Your task to perform on an android device: uninstall "Move to iOS" Image 0: 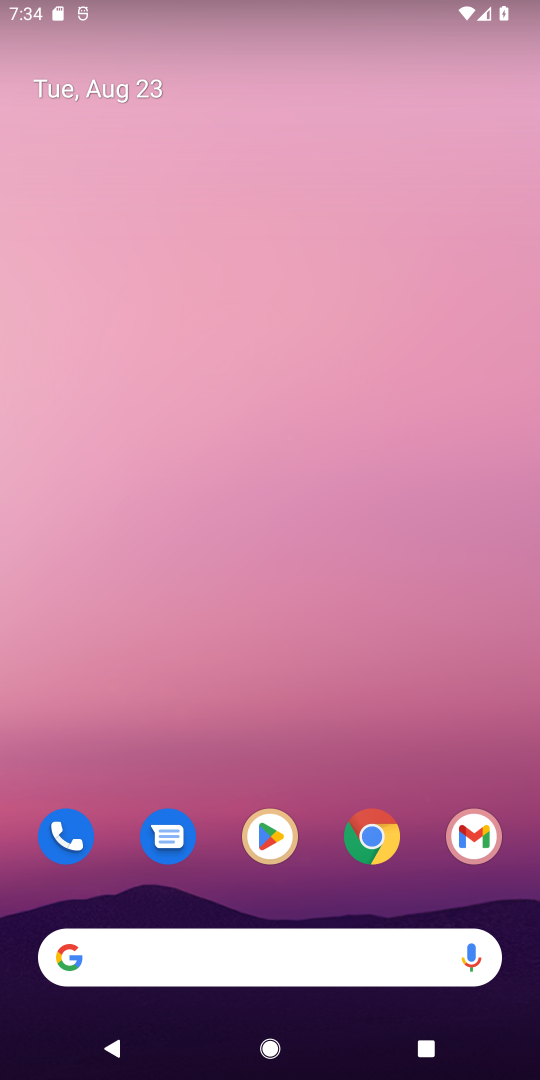
Step 0: click (284, 834)
Your task to perform on an android device: uninstall "Move to iOS" Image 1: 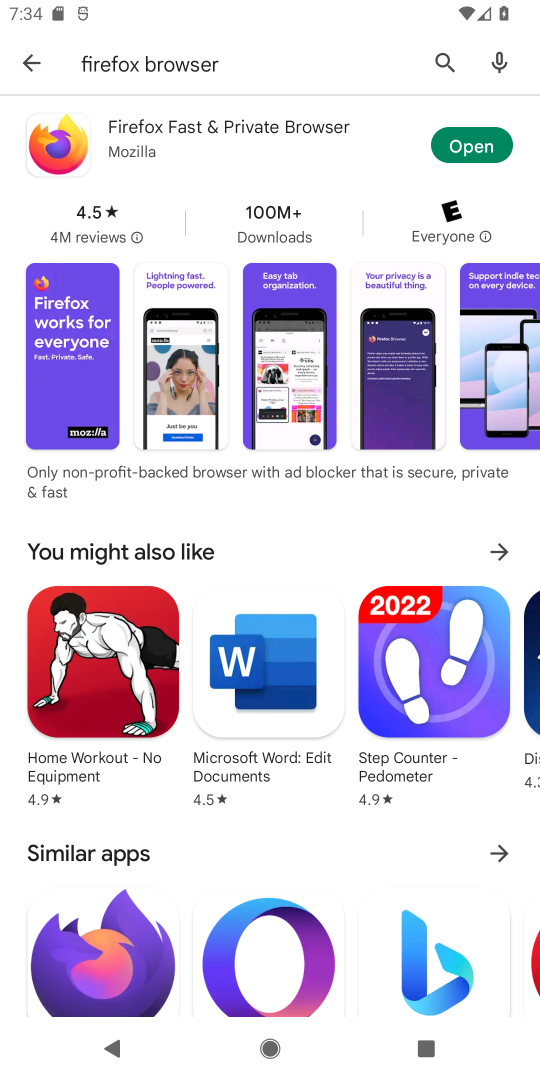
Step 1: click (442, 63)
Your task to perform on an android device: uninstall "Move to iOS" Image 2: 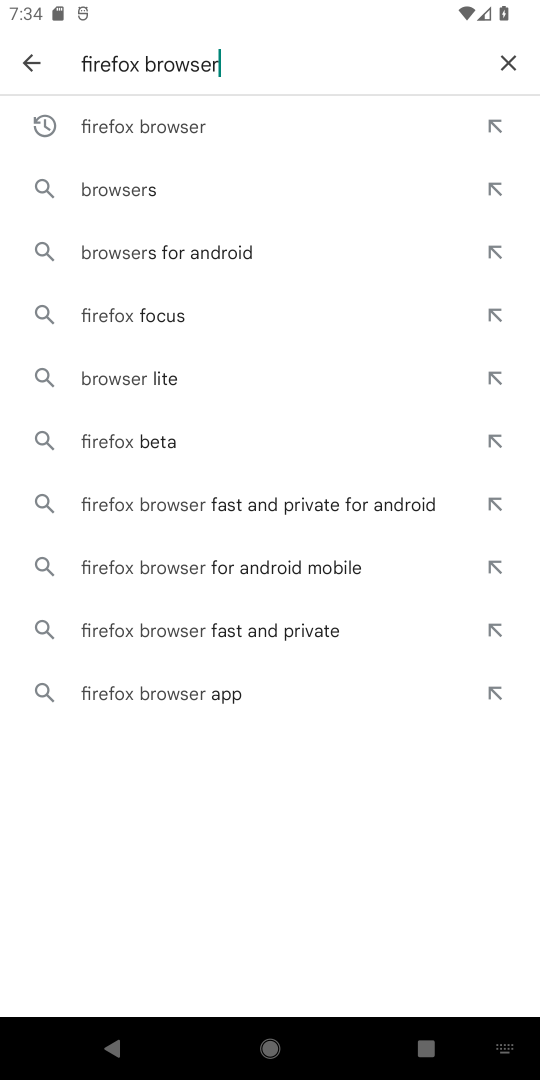
Step 2: click (505, 48)
Your task to perform on an android device: uninstall "Move to iOS" Image 3: 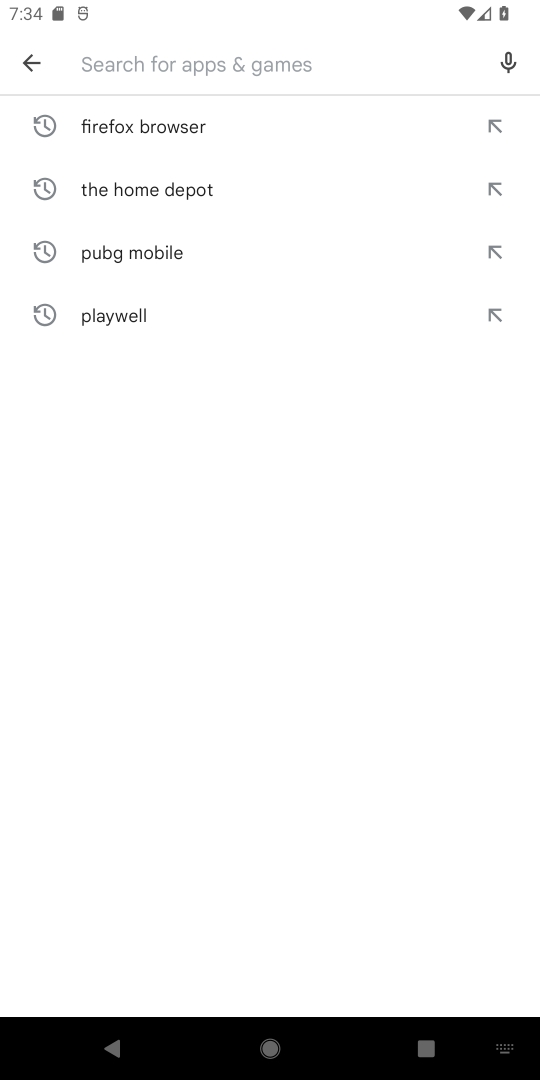
Step 3: type "Move to iOS"
Your task to perform on an android device: uninstall "Move to iOS" Image 4: 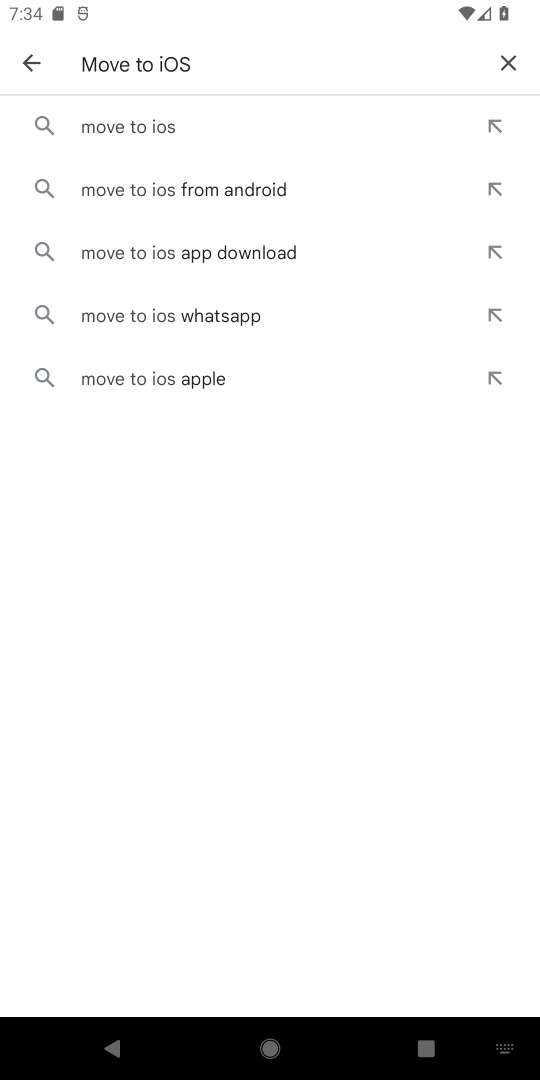
Step 4: click (173, 124)
Your task to perform on an android device: uninstall "Move to iOS" Image 5: 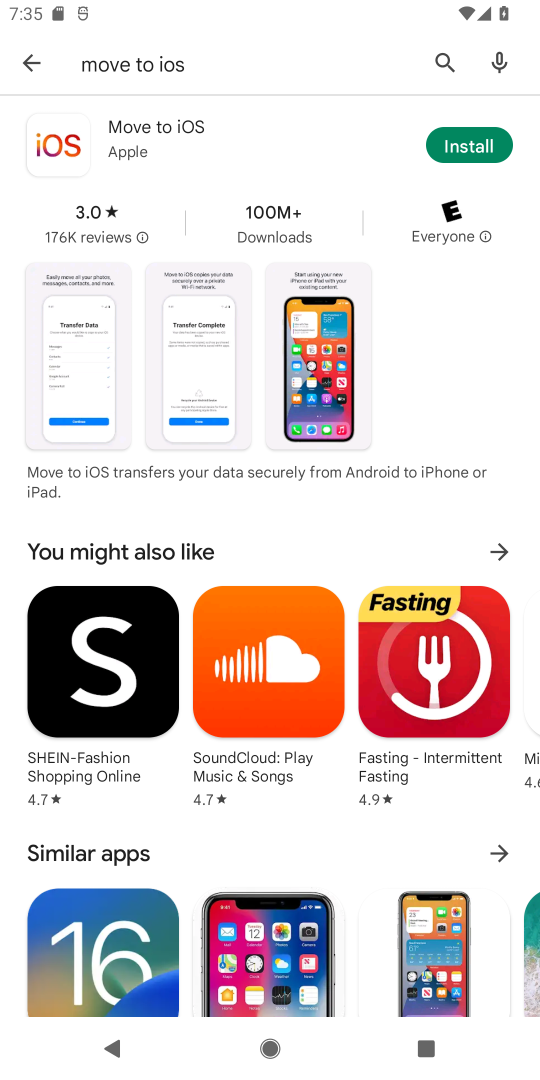
Step 5: task complete